Your task to perform on an android device: Google the capital of Argentina Image 0: 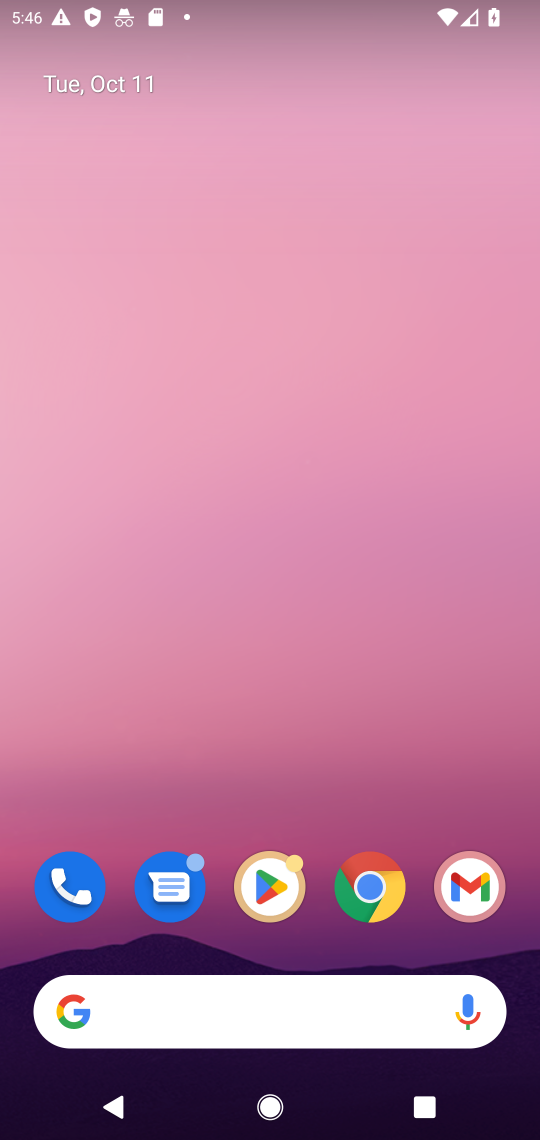
Step 0: click (251, 996)
Your task to perform on an android device: Google the capital of Argentina Image 1: 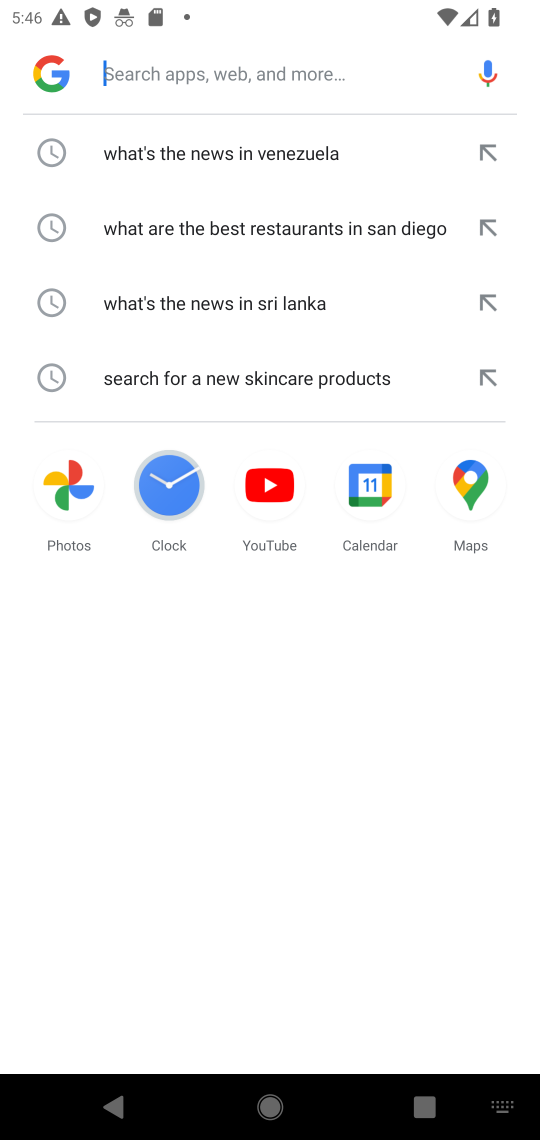
Step 1: type "the capital of Argentina"
Your task to perform on an android device: Google the capital of Argentina Image 2: 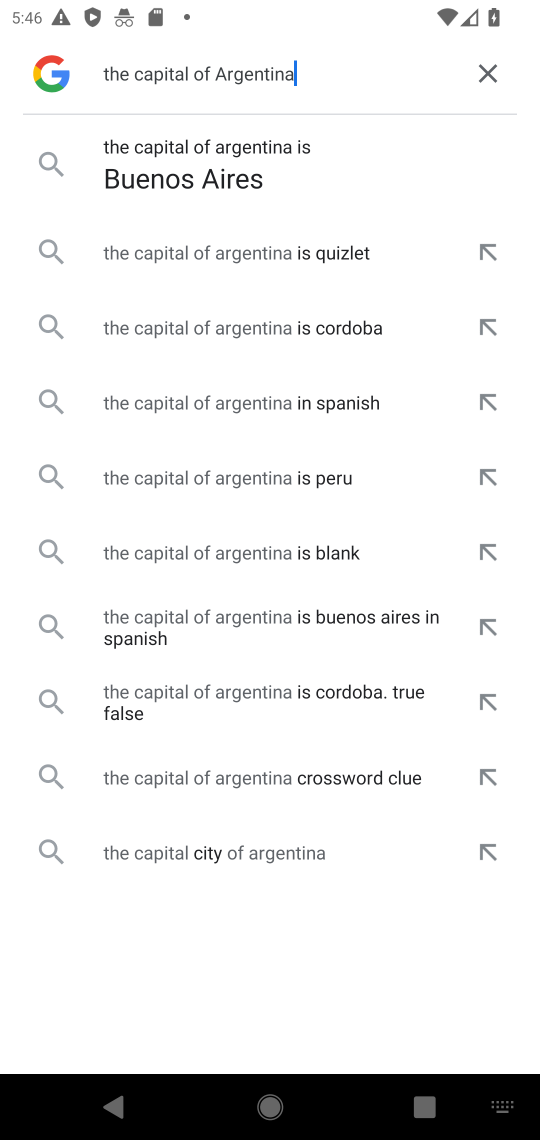
Step 2: click (170, 184)
Your task to perform on an android device: Google the capital of Argentina Image 3: 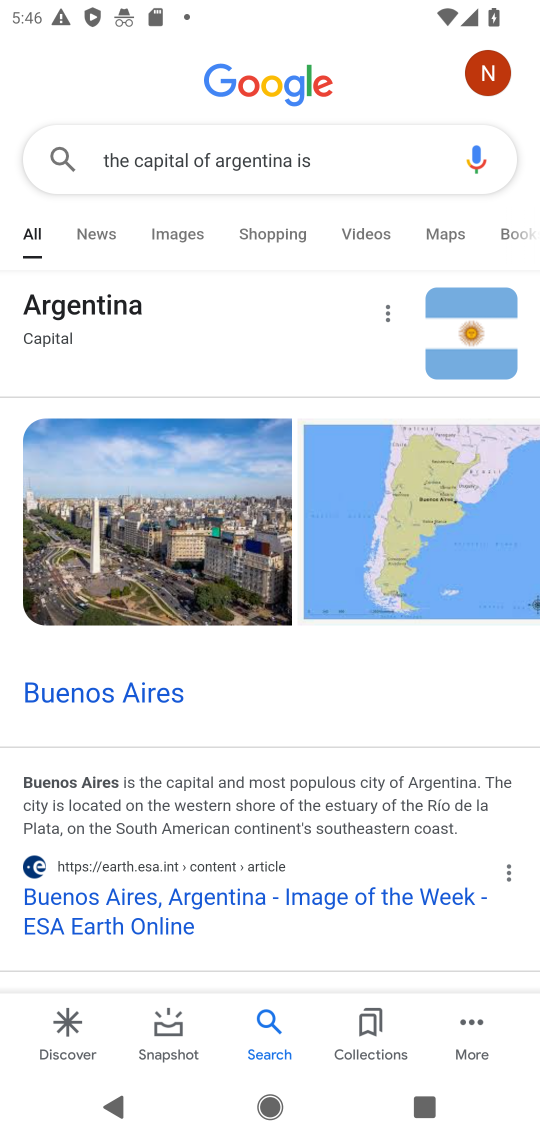
Step 3: task complete